Your task to perform on an android device: Open wifi settings Image 0: 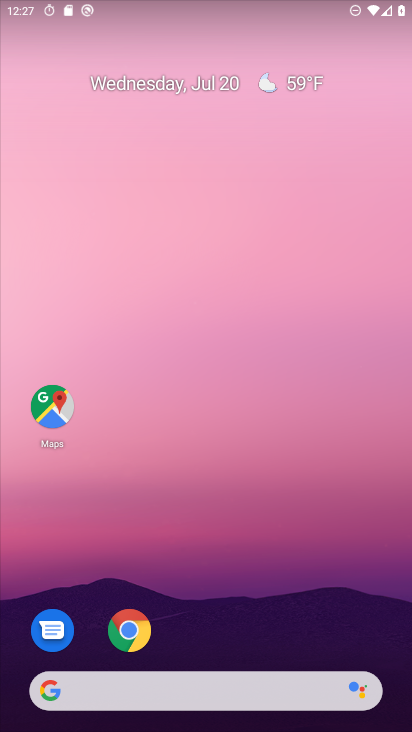
Step 0: drag from (215, 471) to (258, 11)
Your task to perform on an android device: Open wifi settings Image 1: 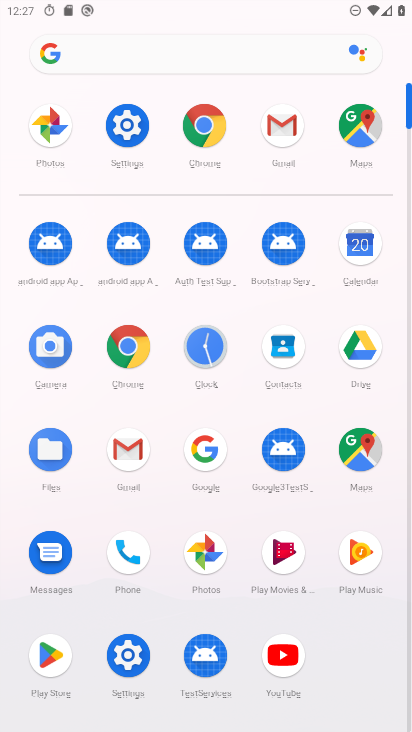
Step 1: click (143, 118)
Your task to perform on an android device: Open wifi settings Image 2: 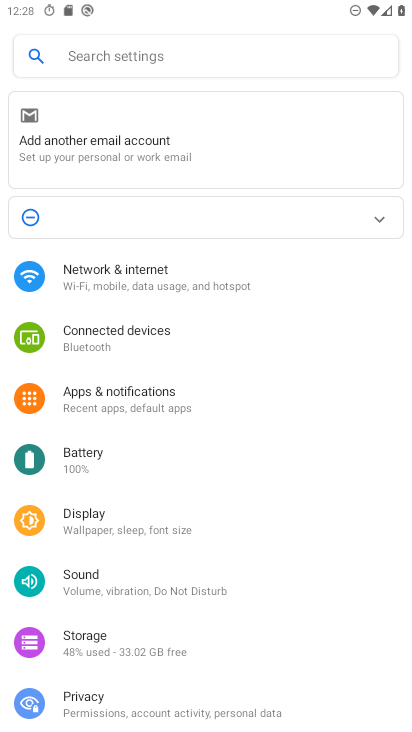
Step 2: click (136, 289)
Your task to perform on an android device: Open wifi settings Image 3: 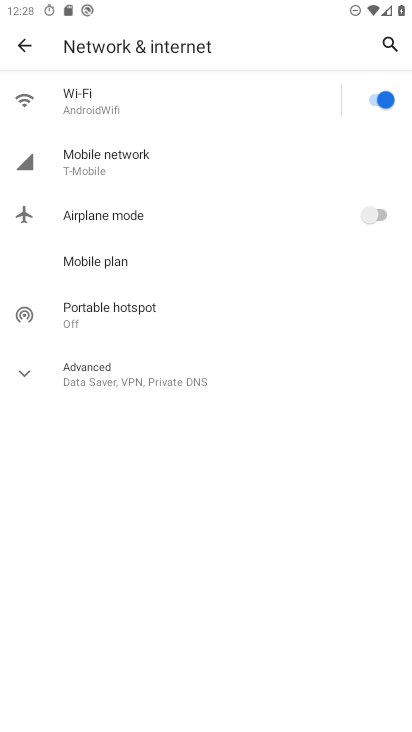
Step 3: click (135, 98)
Your task to perform on an android device: Open wifi settings Image 4: 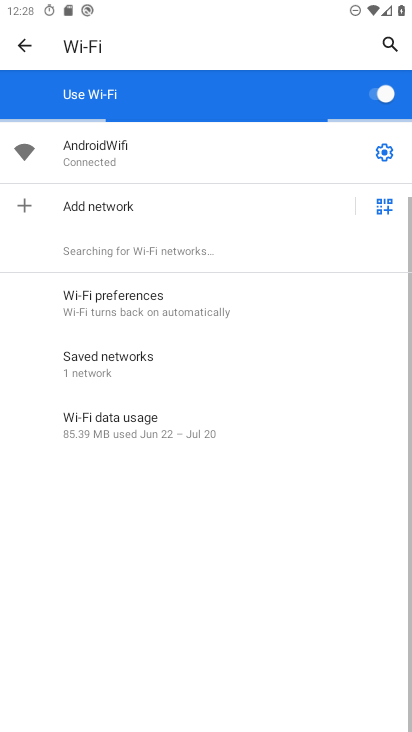
Step 4: task complete